Your task to perform on an android device: make emails show in primary in the gmail app Image 0: 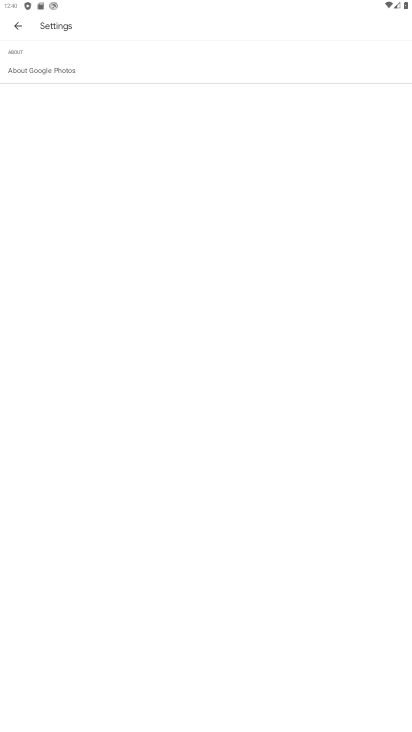
Step 0: press home button
Your task to perform on an android device: make emails show in primary in the gmail app Image 1: 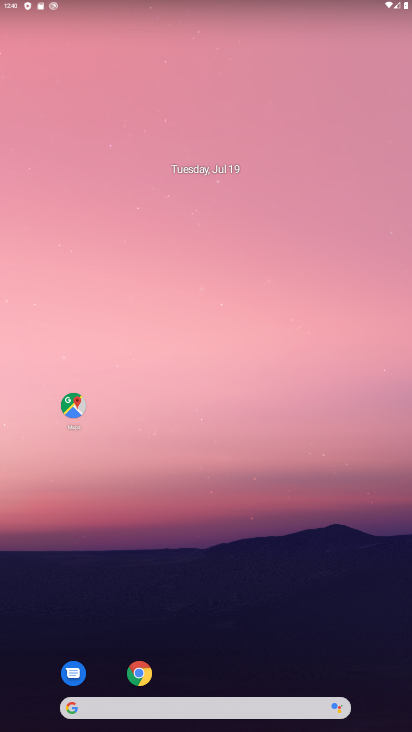
Step 1: drag from (193, 674) to (181, 104)
Your task to perform on an android device: make emails show in primary in the gmail app Image 2: 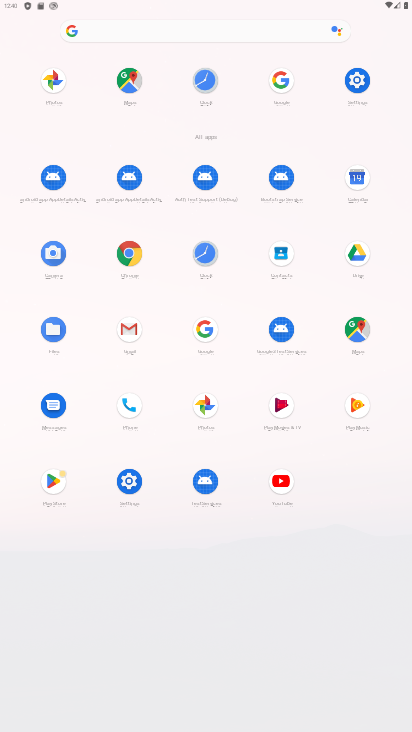
Step 2: click (135, 330)
Your task to perform on an android device: make emails show in primary in the gmail app Image 3: 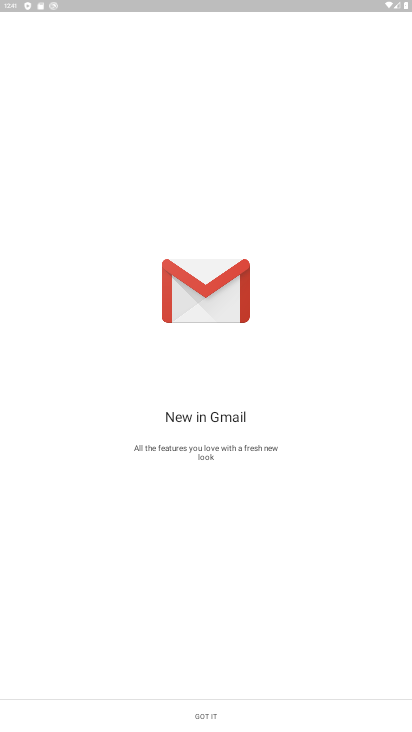
Step 3: click (206, 703)
Your task to perform on an android device: make emails show in primary in the gmail app Image 4: 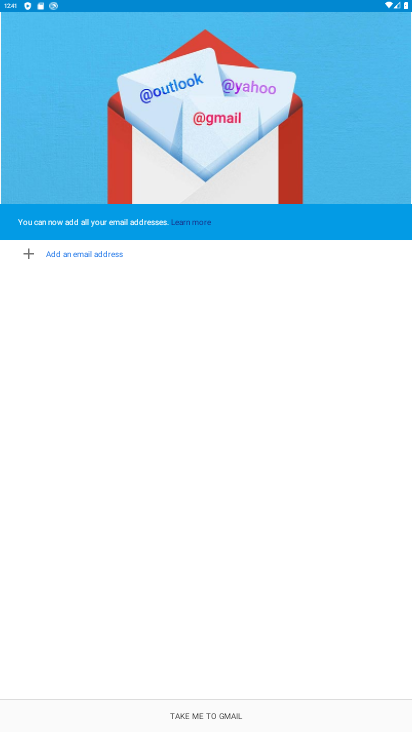
Step 4: click (227, 704)
Your task to perform on an android device: make emails show in primary in the gmail app Image 5: 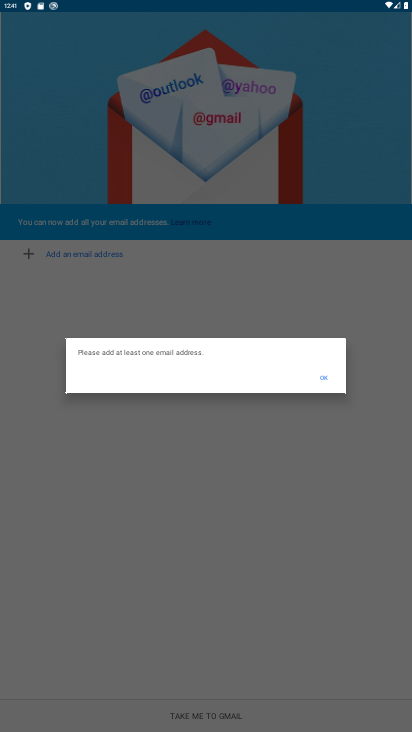
Step 5: click (321, 382)
Your task to perform on an android device: make emails show in primary in the gmail app Image 6: 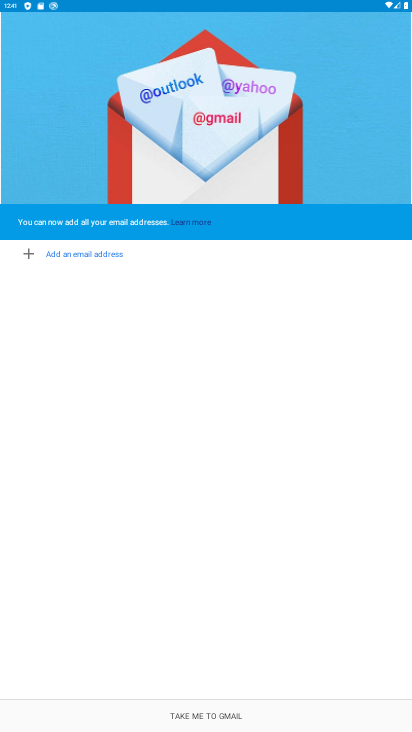
Step 6: task complete